Your task to perform on an android device: Open the stopwatch Image 0: 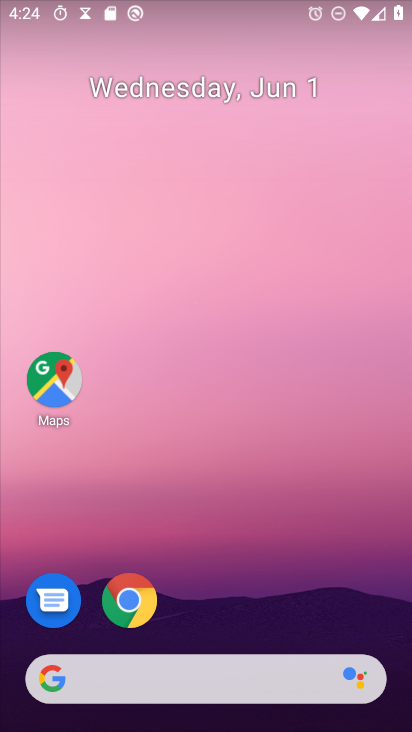
Step 0: drag from (181, 626) to (190, 240)
Your task to perform on an android device: Open the stopwatch Image 1: 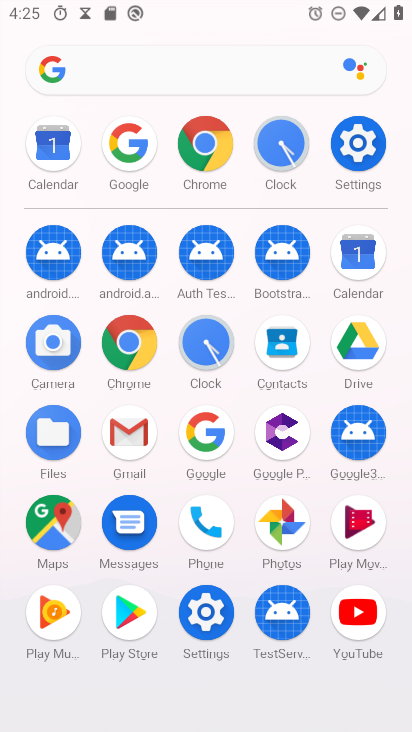
Step 1: click (284, 158)
Your task to perform on an android device: Open the stopwatch Image 2: 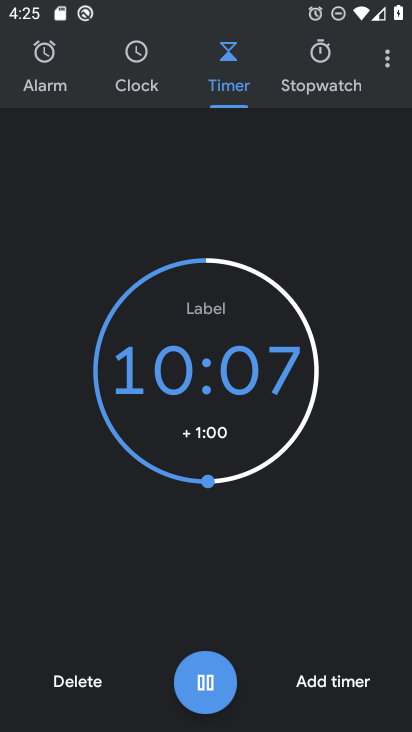
Step 2: click (320, 70)
Your task to perform on an android device: Open the stopwatch Image 3: 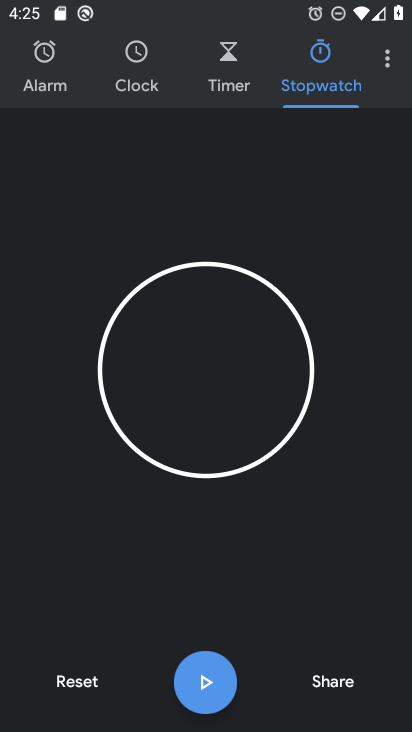
Step 3: task complete